Your task to perform on an android device: What's on my calendar today? Image 0: 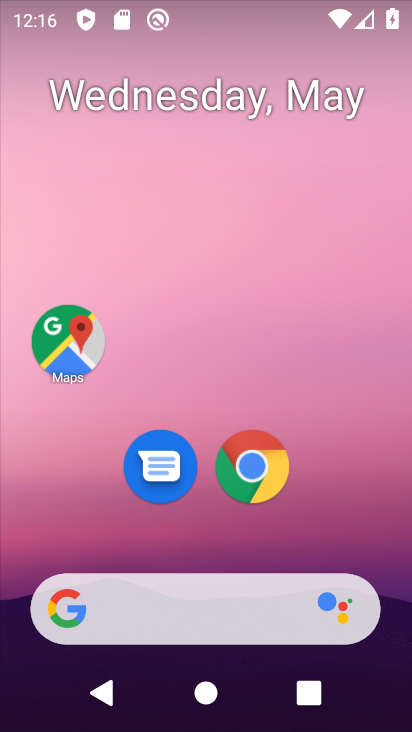
Step 0: drag from (389, 596) to (275, 193)
Your task to perform on an android device: What's on my calendar today? Image 1: 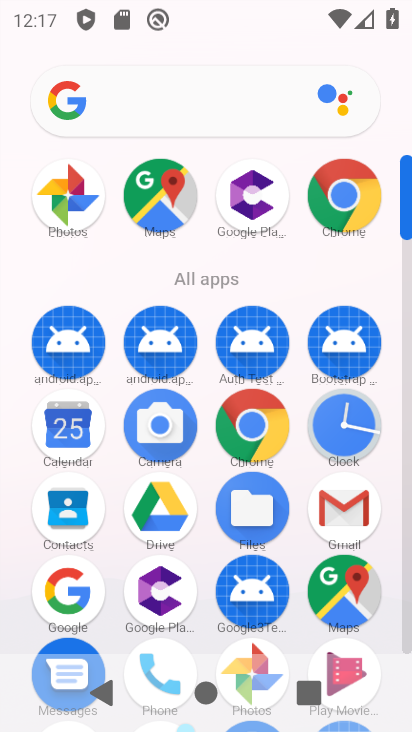
Step 1: click (68, 426)
Your task to perform on an android device: What's on my calendar today? Image 2: 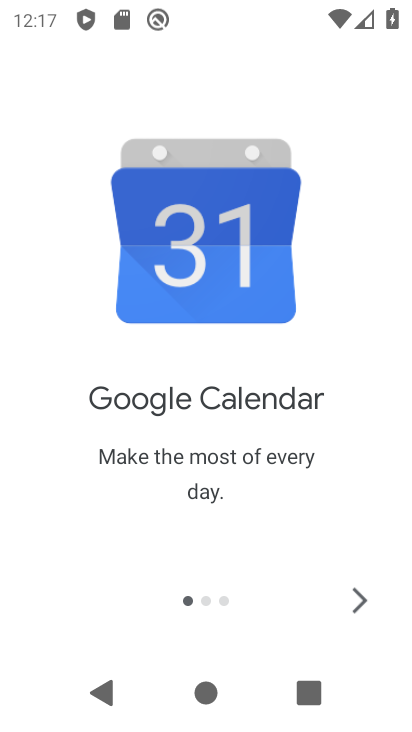
Step 2: click (352, 611)
Your task to perform on an android device: What's on my calendar today? Image 3: 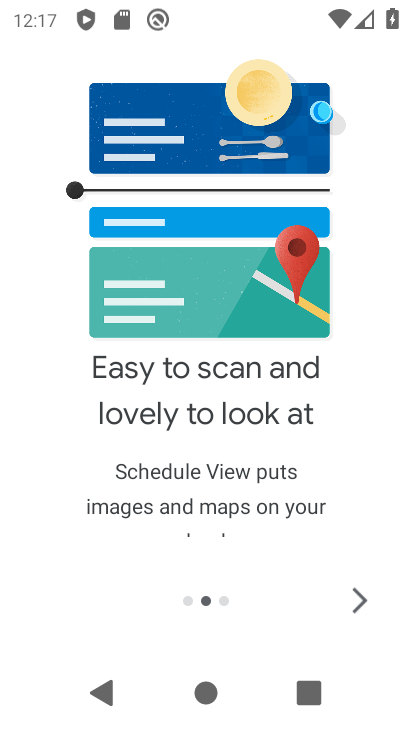
Step 3: click (352, 611)
Your task to perform on an android device: What's on my calendar today? Image 4: 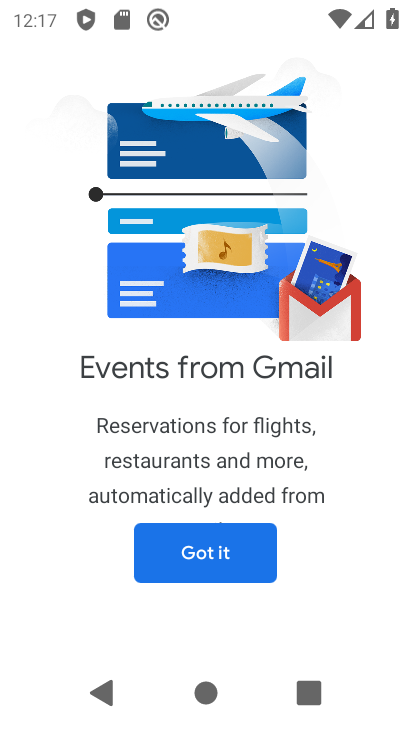
Step 4: click (257, 563)
Your task to perform on an android device: What's on my calendar today? Image 5: 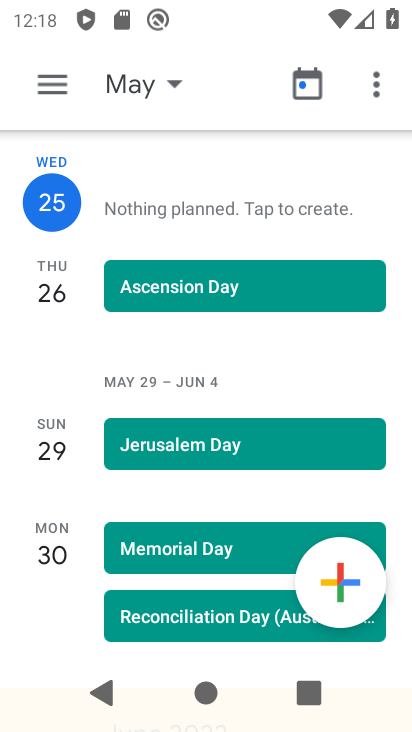
Step 5: click (172, 72)
Your task to perform on an android device: What's on my calendar today? Image 6: 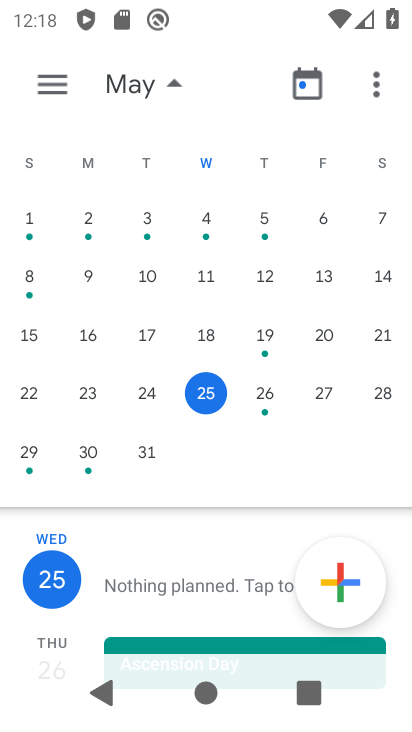
Step 6: click (203, 380)
Your task to perform on an android device: What's on my calendar today? Image 7: 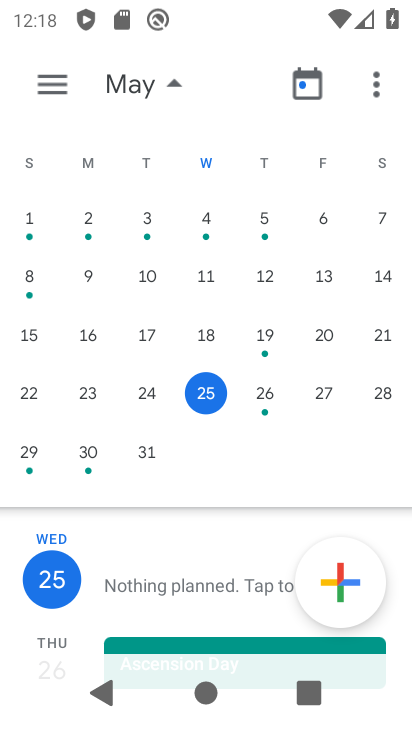
Step 7: click (165, 86)
Your task to perform on an android device: What's on my calendar today? Image 8: 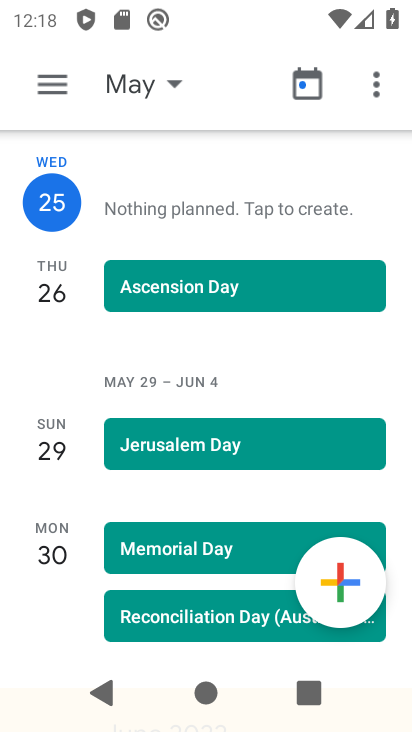
Step 8: task complete